Your task to perform on an android device: What's the weather? Image 0: 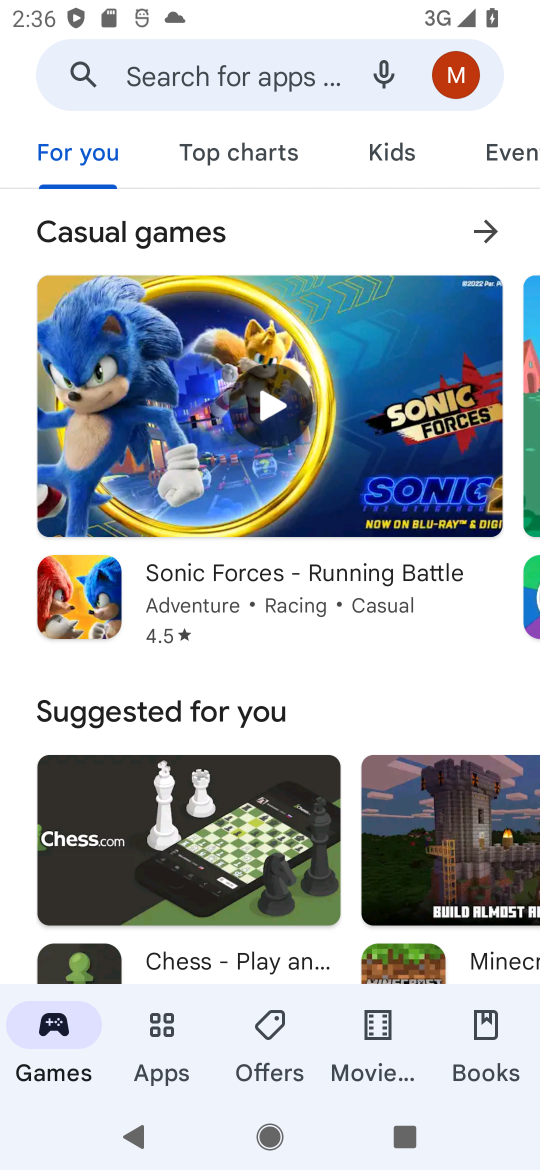
Step 0: press home button
Your task to perform on an android device: What's the weather? Image 1: 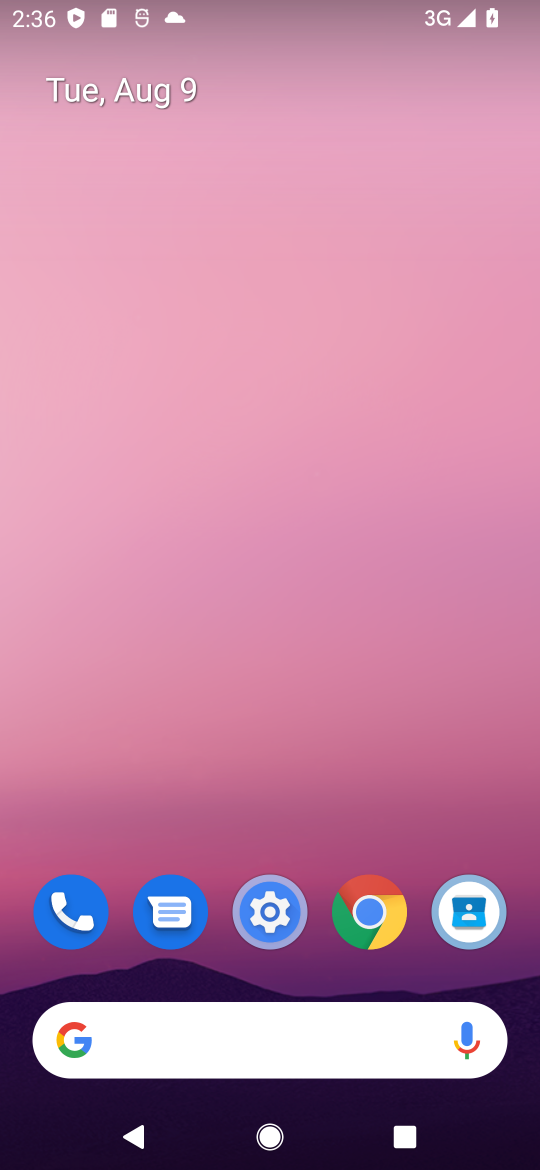
Step 1: drag from (259, 734) to (327, 14)
Your task to perform on an android device: What's the weather? Image 2: 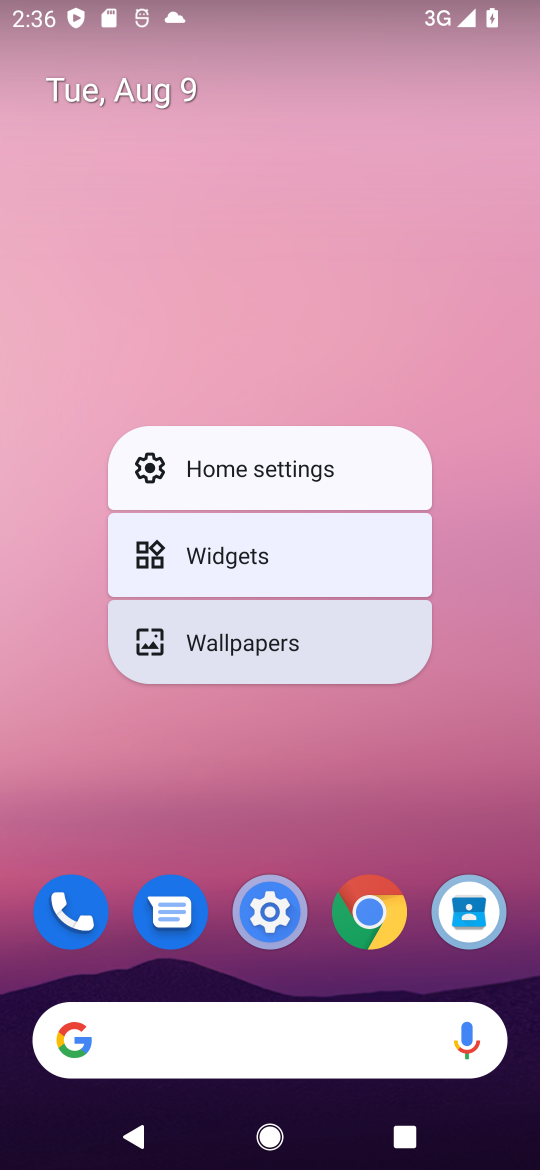
Step 2: click (357, 384)
Your task to perform on an android device: What's the weather? Image 3: 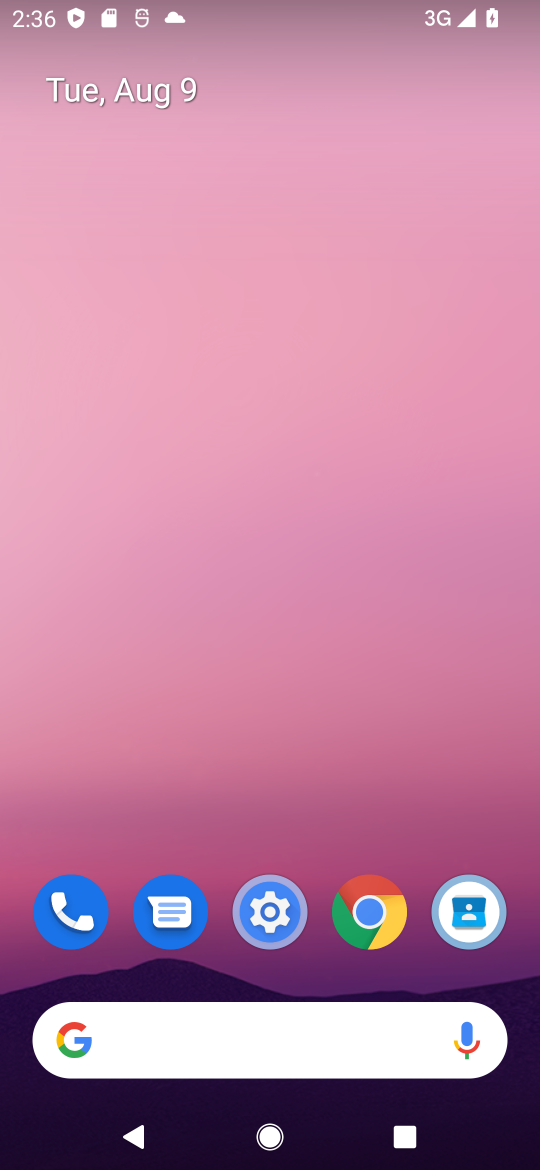
Step 3: drag from (298, 839) to (251, 100)
Your task to perform on an android device: What's the weather? Image 4: 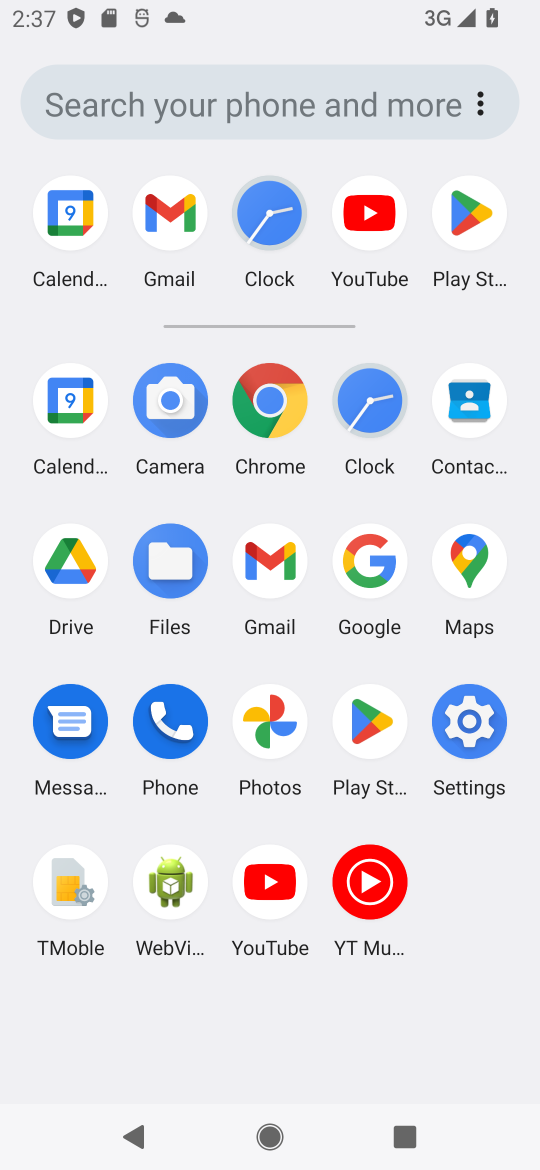
Step 4: click (369, 559)
Your task to perform on an android device: What's the weather? Image 5: 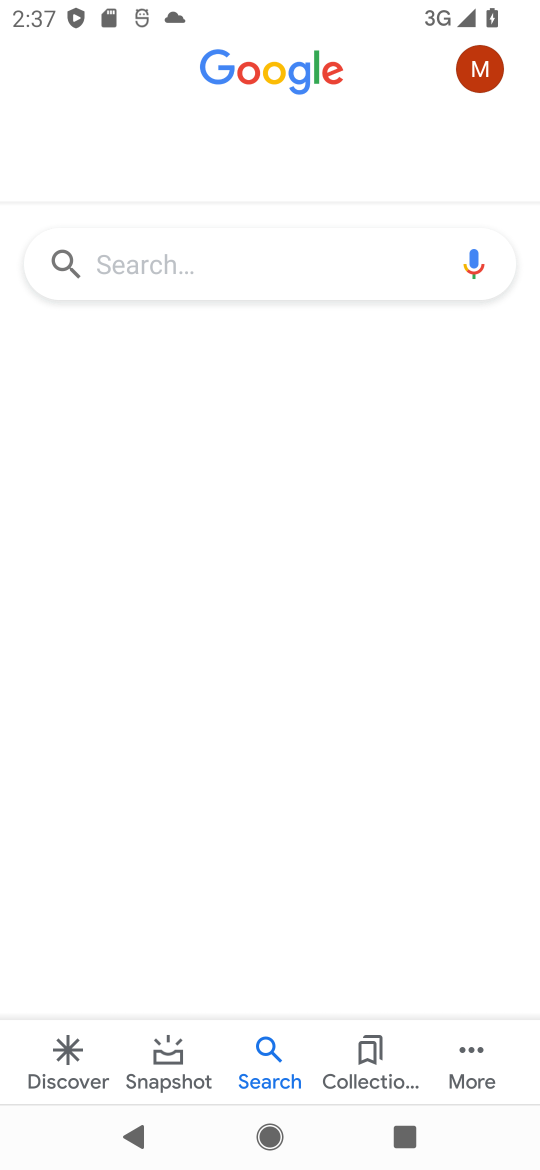
Step 5: click (222, 258)
Your task to perform on an android device: What's the weather? Image 6: 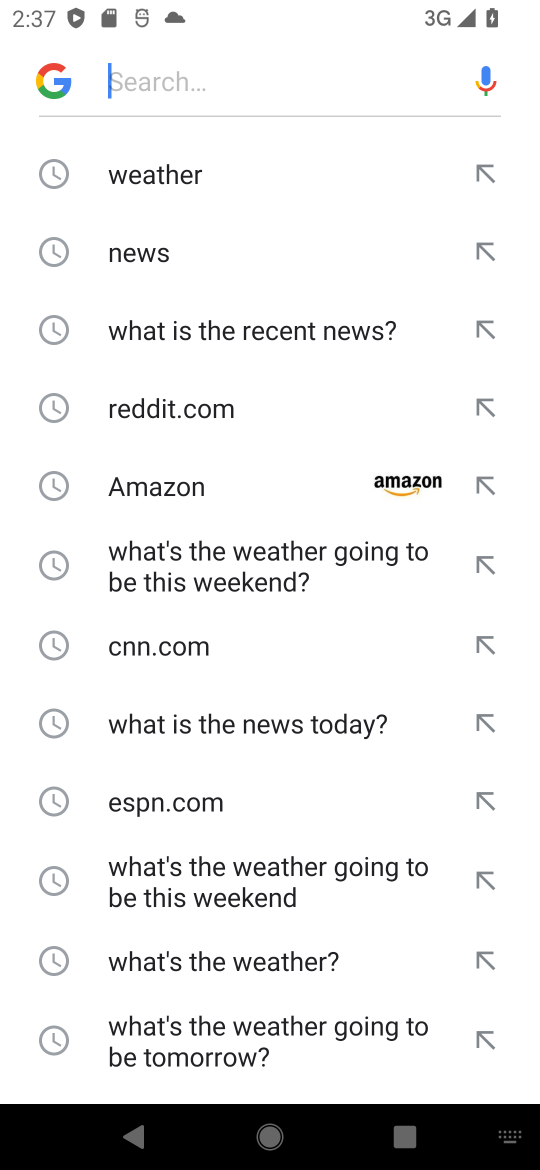
Step 6: click (176, 169)
Your task to perform on an android device: What's the weather? Image 7: 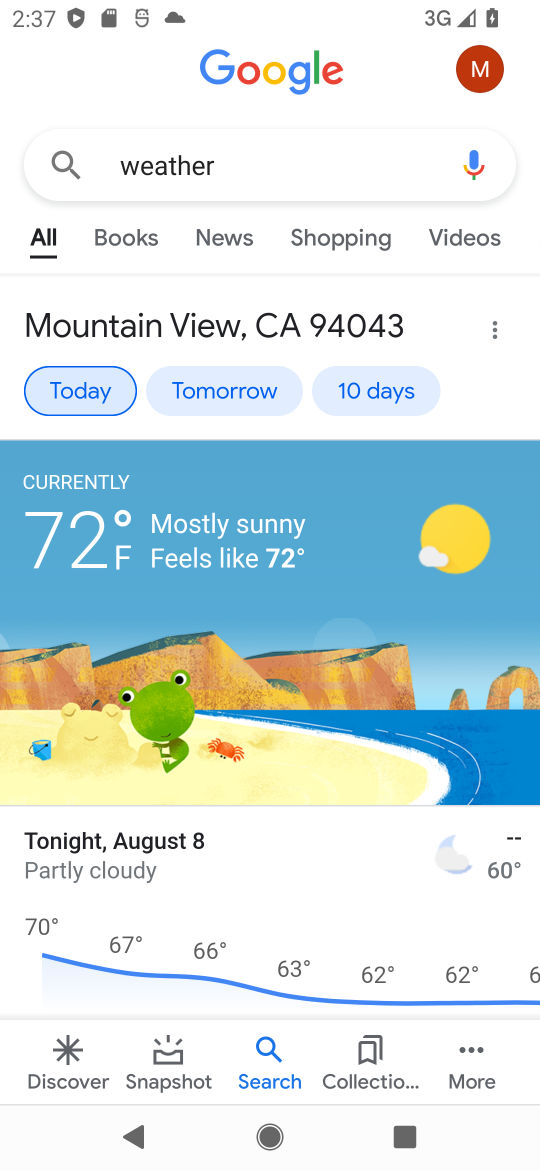
Step 7: task complete